Your task to perform on an android device: Go to calendar. Show me events next week Image 0: 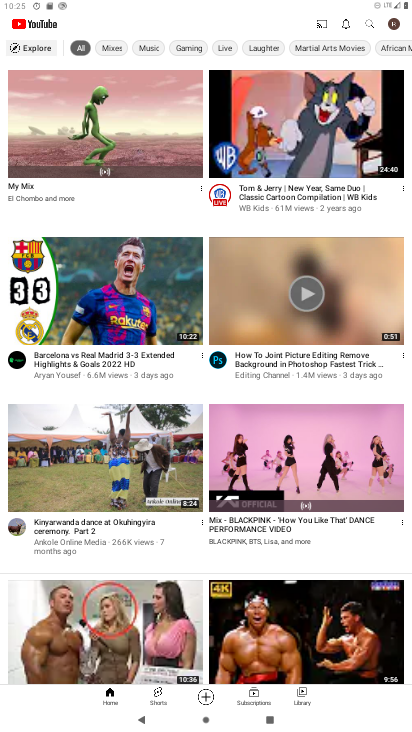
Step 0: drag from (313, 515) to (298, 137)
Your task to perform on an android device: Go to calendar. Show me events next week Image 1: 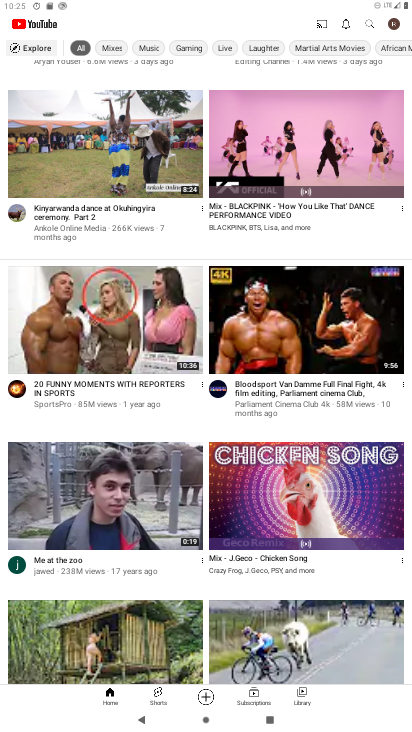
Step 1: press home button
Your task to perform on an android device: Go to calendar. Show me events next week Image 2: 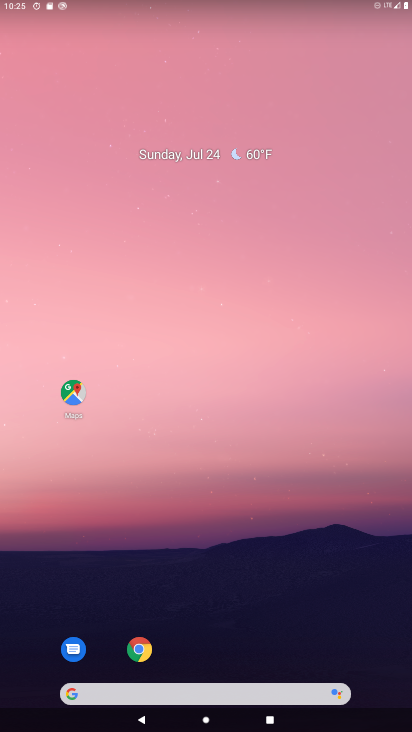
Step 2: drag from (278, 610) to (283, 141)
Your task to perform on an android device: Go to calendar. Show me events next week Image 3: 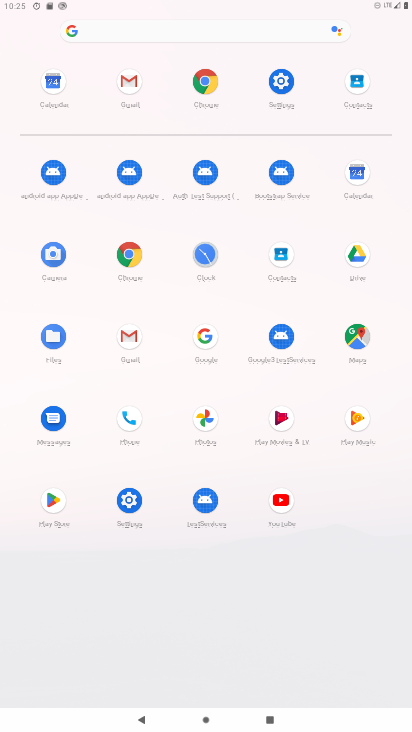
Step 3: click (358, 175)
Your task to perform on an android device: Go to calendar. Show me events next week Image 4: 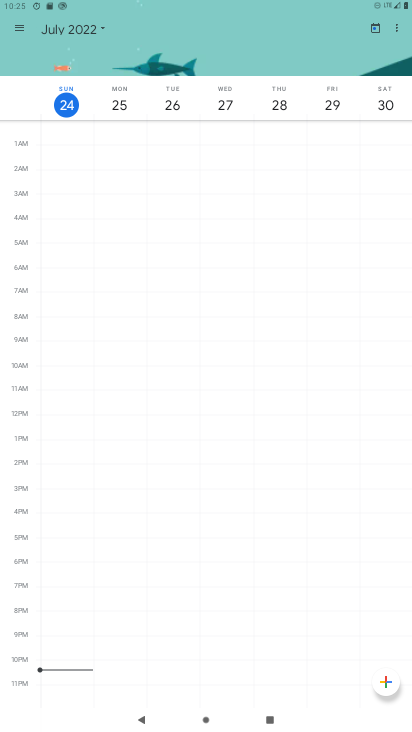
Step 4: click (27, 24)
Your task to perform on an android device: Go to calendar. Show me events next week Image 5: 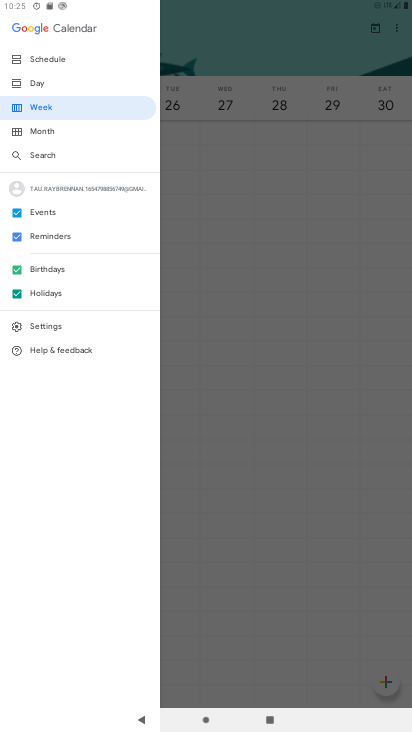
Step 5: click (193, 53)
Your task to perform on an android device: Go to calendar. Show me events next week Image 6: 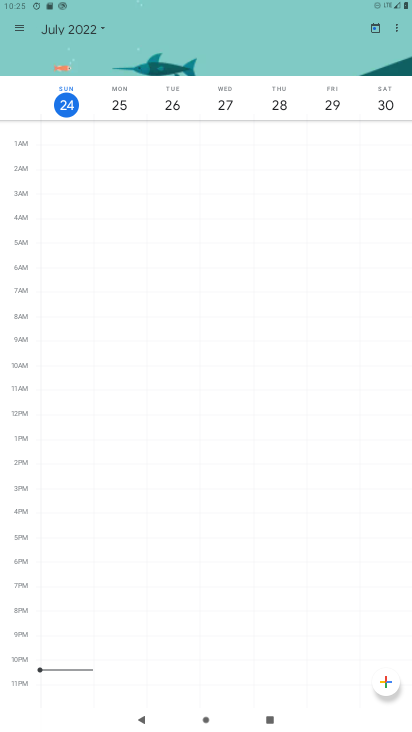
Step 6: click (92, 23)
Your task to perform on an android device: Go to calendar. Show me events next week Image 7: 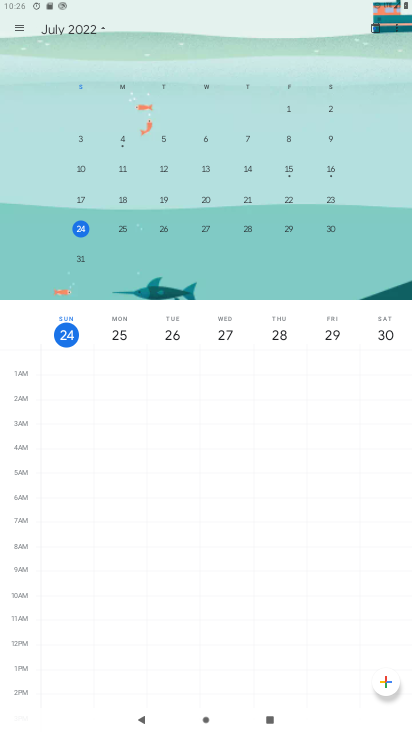
Step 7: click (119, 217)
Your task to perform on an android device: Go to calendar. Show me events next week Image 8: 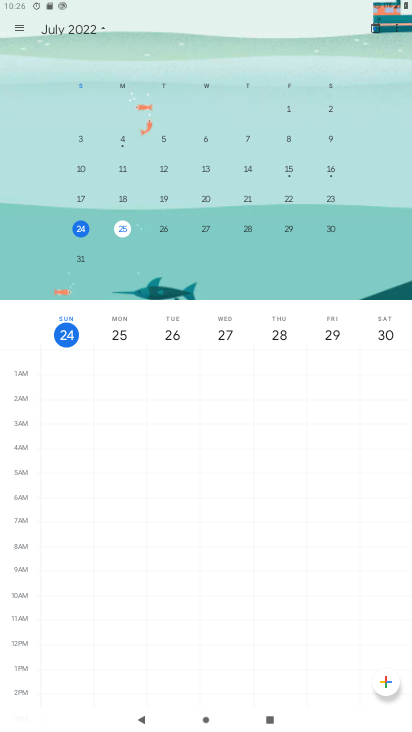
Step 8: click (122, 226)
Your task to perform on an android device: Go to calendar. Show me events next week Image 9: 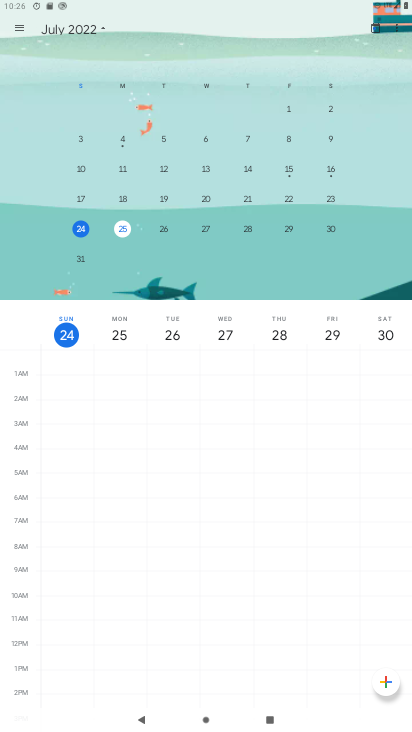
Step 9: task complete